Your task to perform on an android device: Turn on the flashlight Image 0: 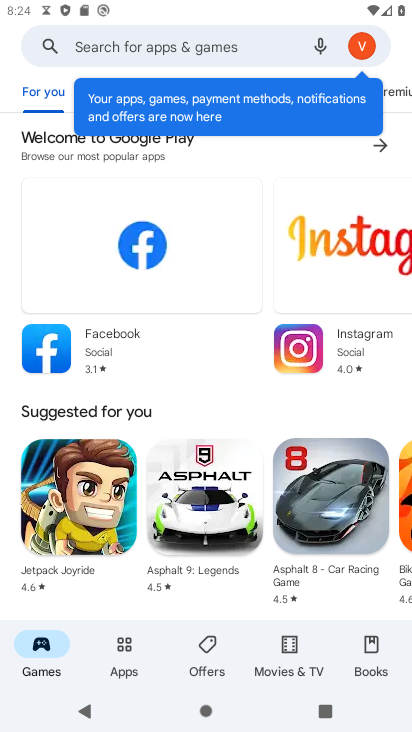
Step 0: press home button
Your task to perform on an android device: Turn on the flashlight Image 1: 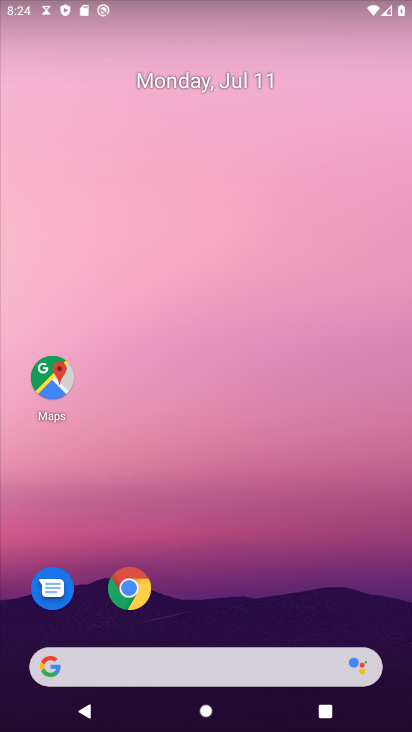
Step 1: task complete